Your task to perform on an android device: Open the Play Movies app and select the watchlist tab. Image 0: 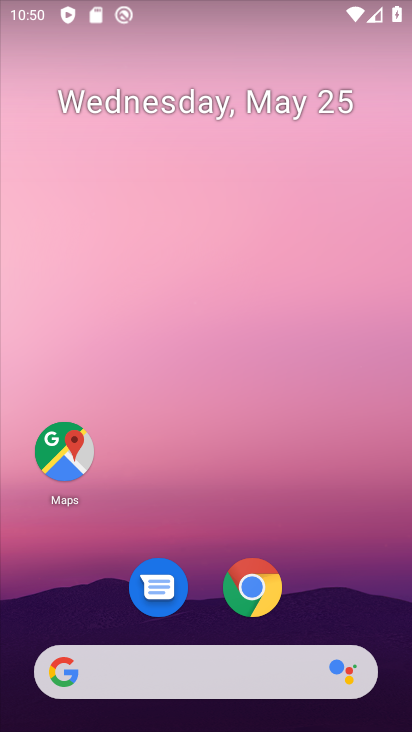
Step 0: drag from (333, 570) to (0, 261)
Your task to perform on an android device: Open the Play Movies app and select the watchlist tab. Image 1: 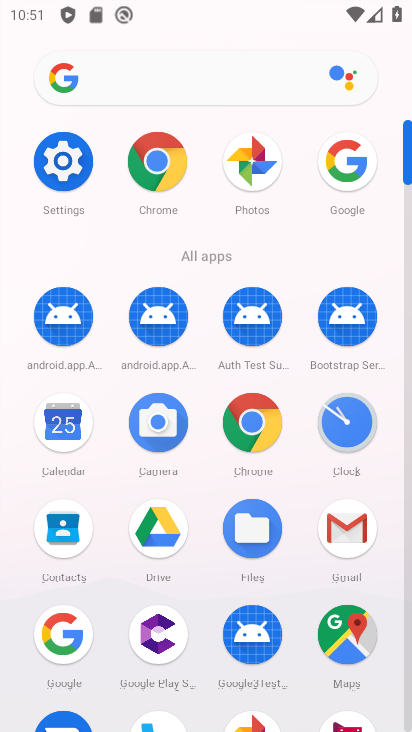
Step 1: drag from (23, 572) to (6, 276)
Your task to perform on an android device: Open the Play Movies app and select the watchlist tab. Image 2: 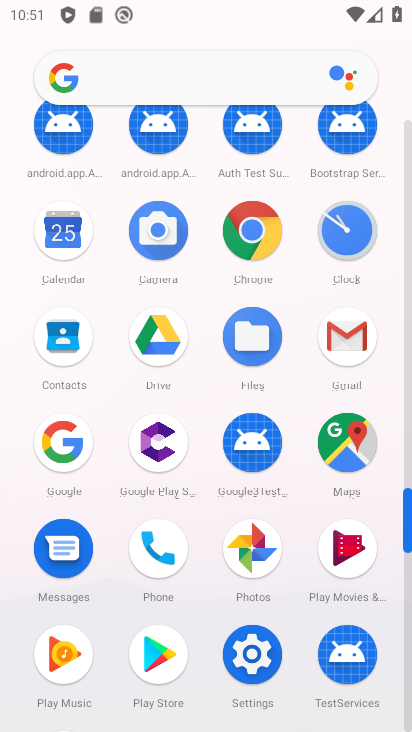
Step 2: click (350, 545)
Your task to perform on an android device: Open the Play Movies app and select the watchlist tab. Image 3: 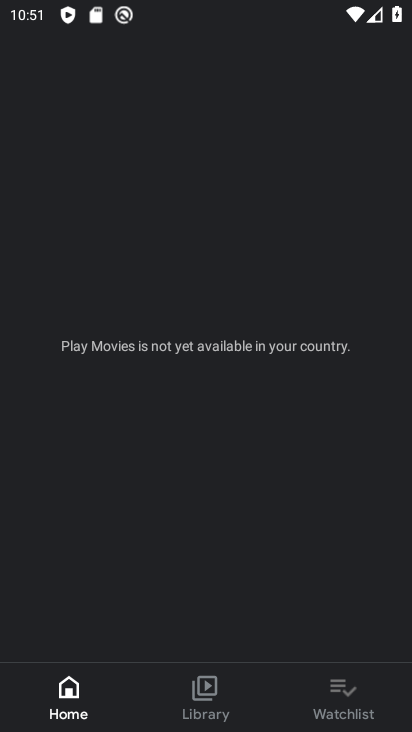
Step 3: click (345, 692)
Your task to perform on an android device: Open the Play Movies app and select the watchlist tab. Image 4: 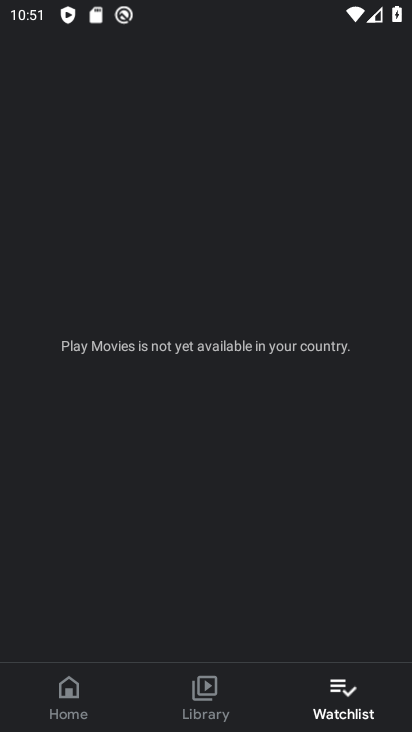
Step 4: task complete